Your task to perform on an android device: WHat are the new products by Samsung on eBay? Image 0: 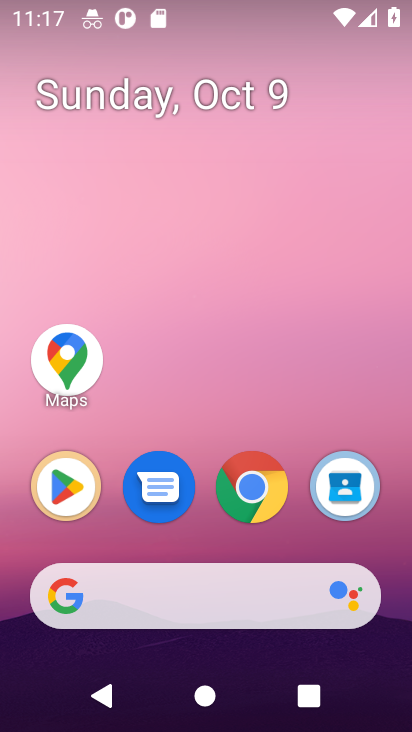
Step 0: click (257, 491)
Your task to perform on an android device: WHat are the new products by Samsung on eBay? Image 1: 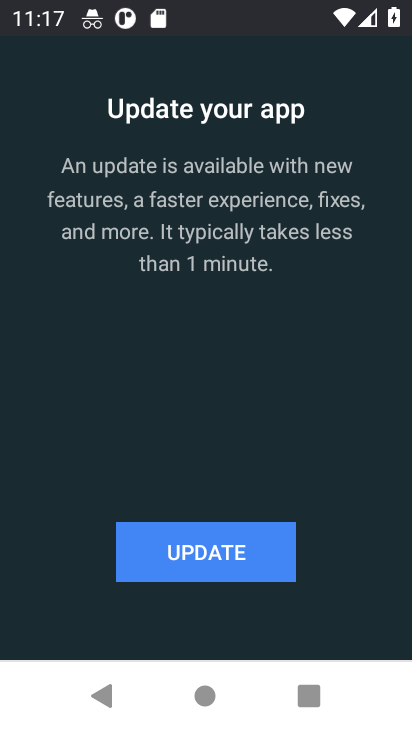
Step 1: press home button
Your task to perform on an android device: WHat are the new products by Samsung on eBay? Image 2: 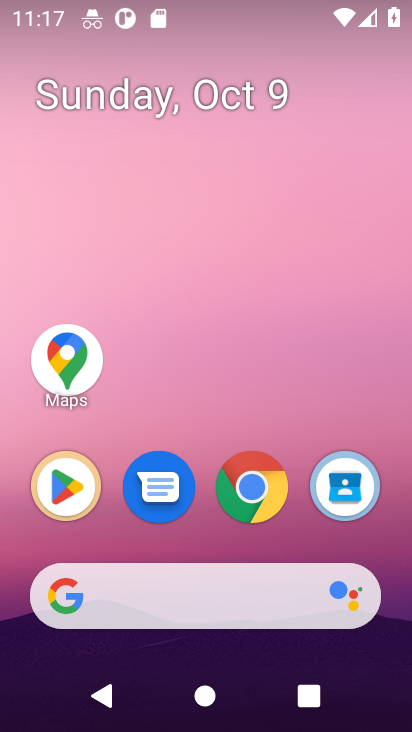
Step 2: click (269, 505)
Your task to perform on an android device: WHat are the new products by Samsung on eBay? Image 3: 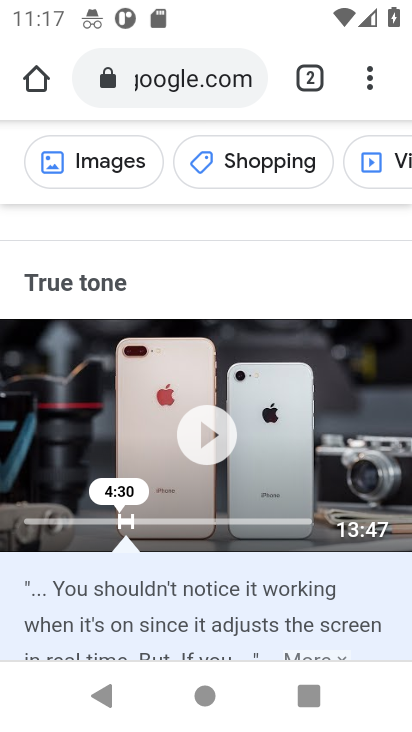
Step 3: click (205, 73)
Your task to perform on an android device: WHat are the new products by Samsung on eBay? Image 4: 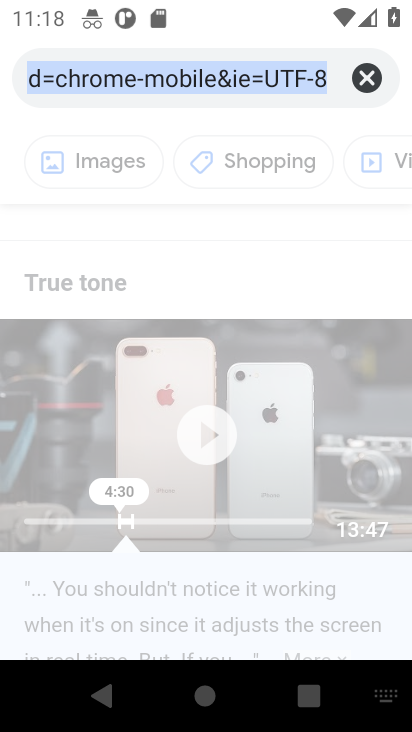
Step 4: type "ebay"
Your task to perform on an android device: WHat are the new products by Samsung on eBay? Image 5: 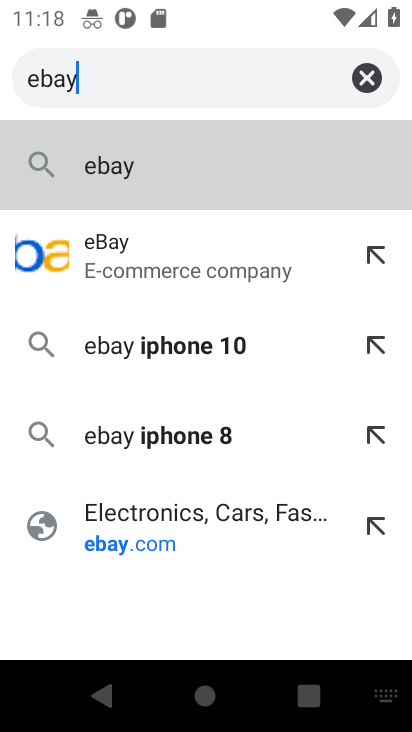
Step 5: press enter
Your task to perform on an android device: WHat are the new products by Samsung on eBay? Image 6: 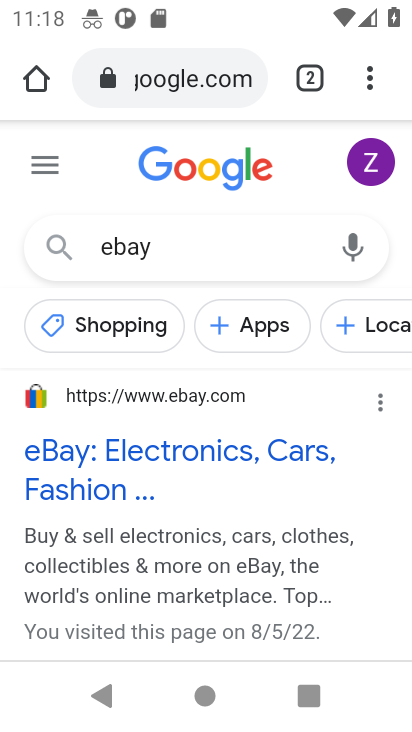
Step 6: click (41, 483)
Your task to perform on an android device: WHat are the new products by Samsung on eBay? Image 7: 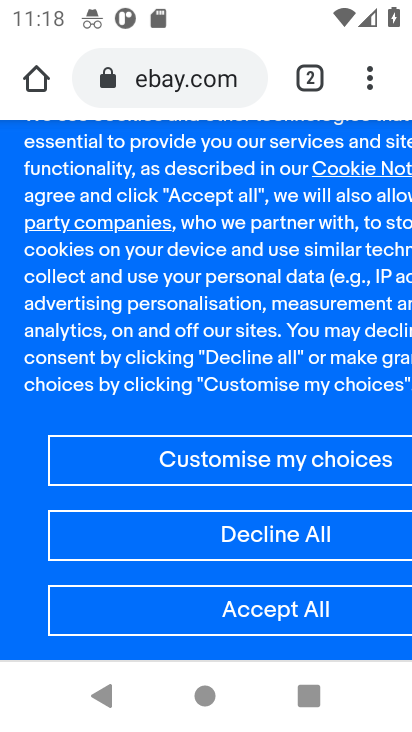
Step 7: click (240, 607)
Your task to perform on an android device: WHat are the new products by Samsung on eBay? Image 8: 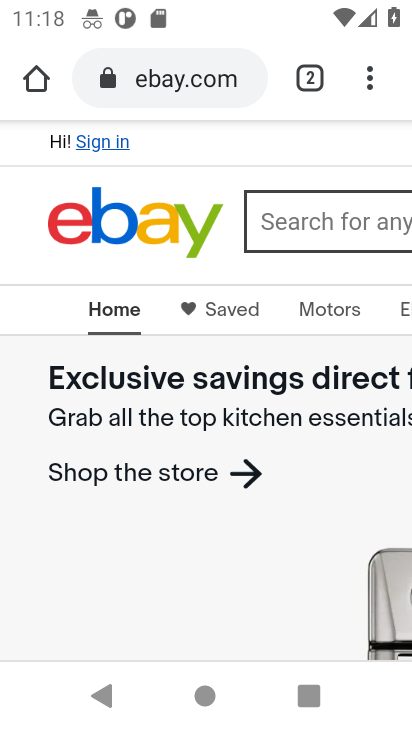
Step 8: click (359, 210)
Your task to perform on an android device: WHat are the new products by Samsung on eBay? Image 9: 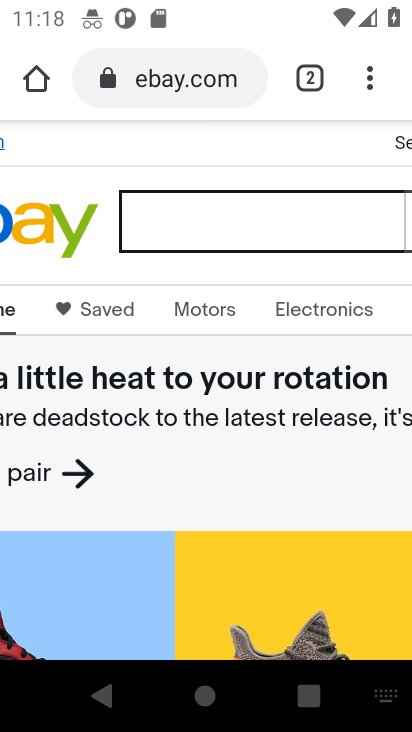
Step 9: click (321, 216)
Your task to perform on an android device: WHat are the new products by Samsung on eBay? Image 10: 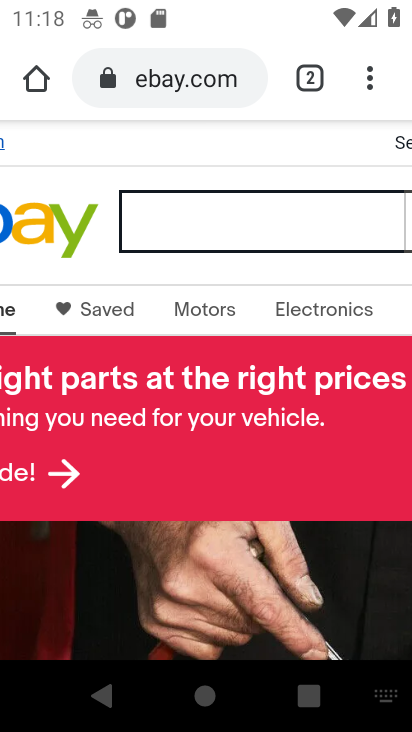
Step 10: type "samsung"
Your task to perform on an android device: WHat are the new products by Samsung on eBay? Image 11: 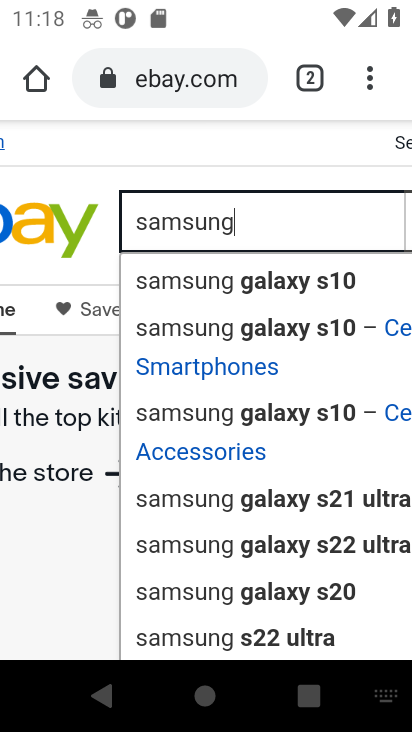
Step 11: press enter
Your task to perform on an android device: WHat are the new products by Samsung on eBay? Image 12: 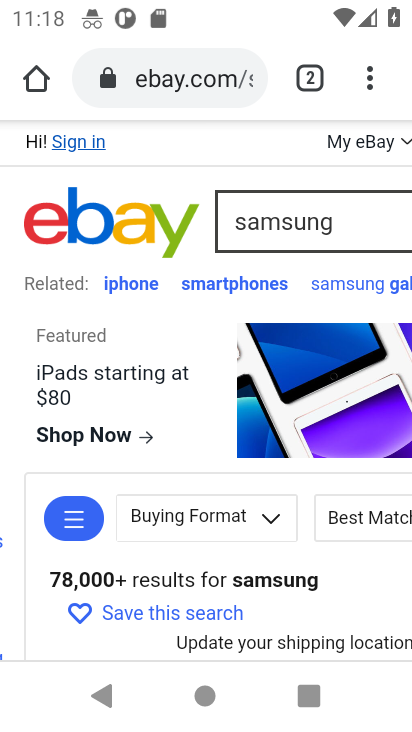
Step 12: drag from (181, 575) to (196, 264)
Your task to perform on an android device: WHat are the new products by Samsung on eBay? Image 13: 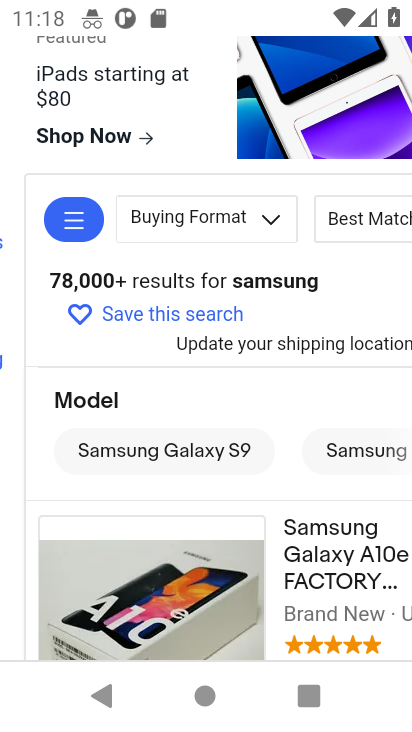
Step 13: click (81, 228)
Your task to perform on an android device: WHat are the new products by Samsung on eBay? Image 14: 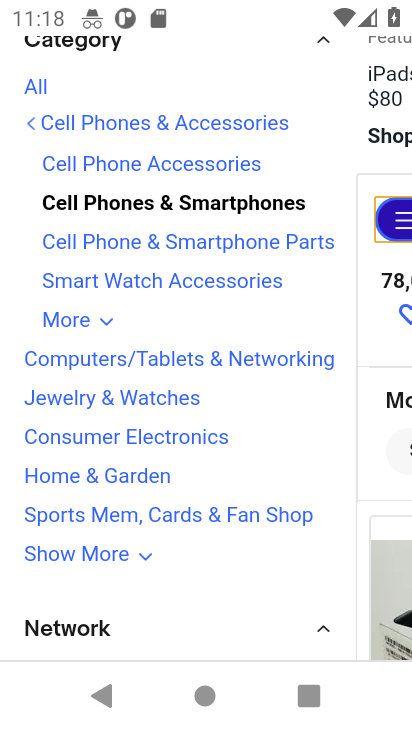
Step 14: click (390, 178)
Your task to perform on an android device: WHat are the new products by Samsung on eBay? Image 15: 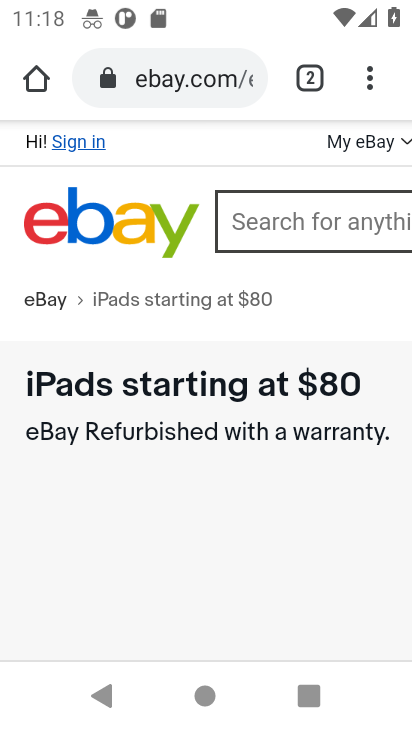
Step 15: click (282, 229)
Your task to perform on an android device: WHat are the new products by Samsung on eBay? Image 16: 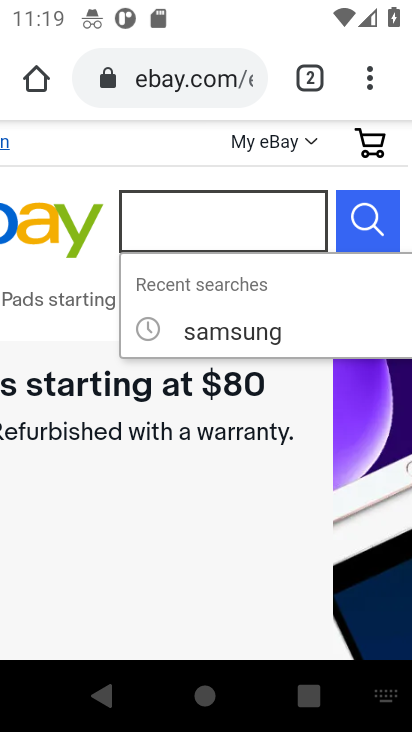
Step 16: type "samsung new products"
Your task to perform on an android device: WHat are the new products by Samsung on eBay? Image 17: 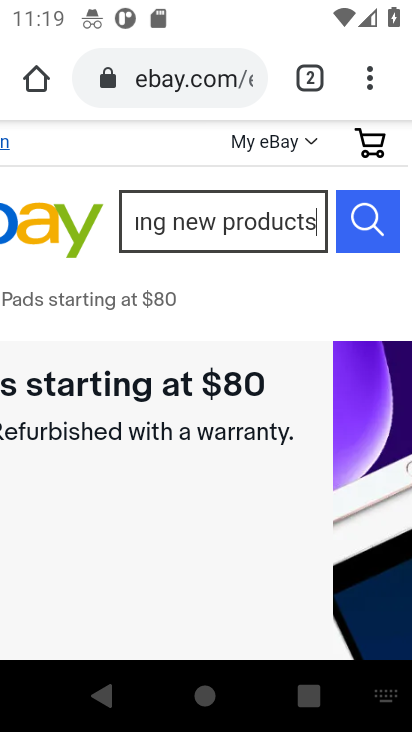
Step 17: press enter
Your task to perform on an android device: WHat are the new products by Samsung on eBay? Image 18: 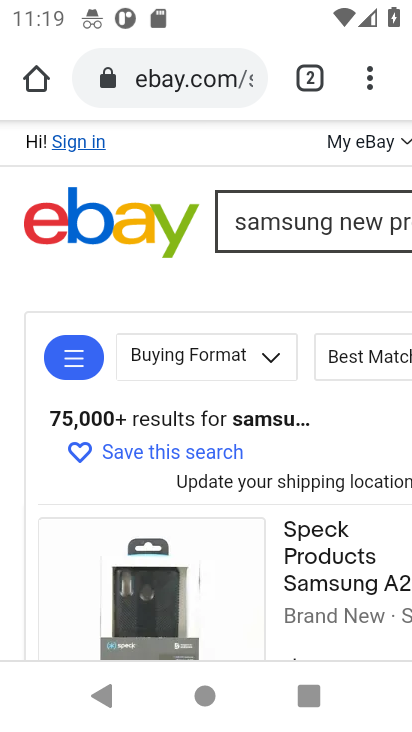
Step 18: drag from (254, 575) to (275, 444)
Your task to perform on an android device: WHat are the new products by Samsung on eBay? Image 19: 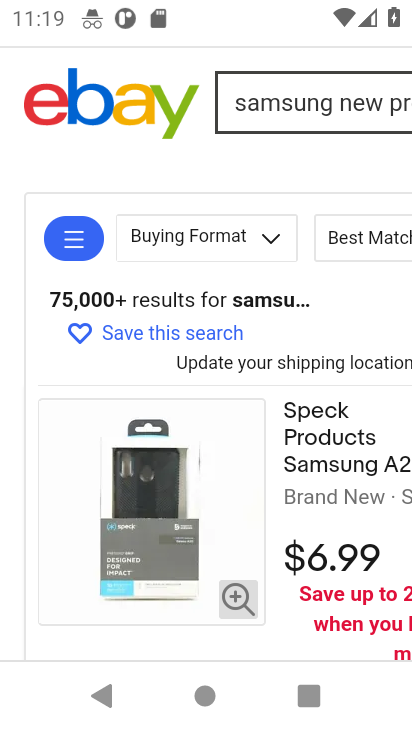
Step 19: click (244, 232)
Your task to perform on an android device: WHat are the new products by Samsung on eBay? Image 20: 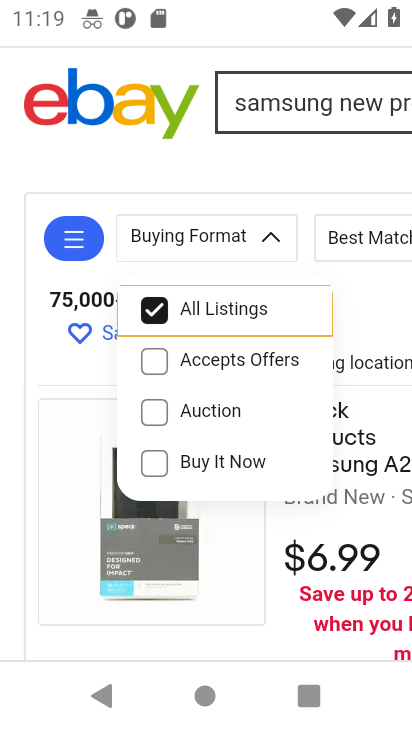
Step 20: click (361, 235)
Your task to perform on an android device: WHat are the new products by Samsung on eBay? Image 21: 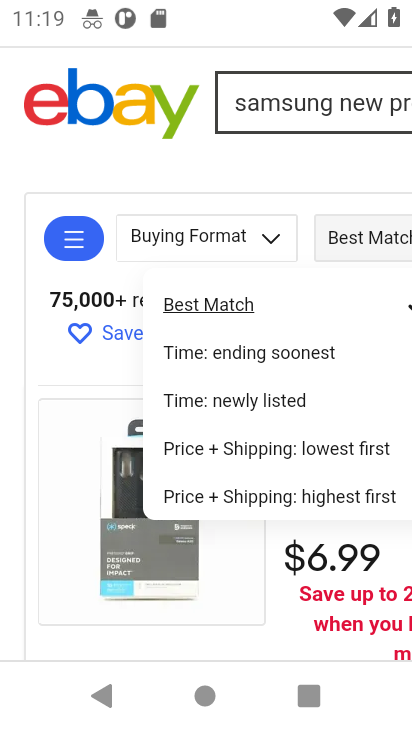
Step 21: click (232, 399)
Your task to perform on an android device: WHat are the new products by Samsung on eBay? Image 22: 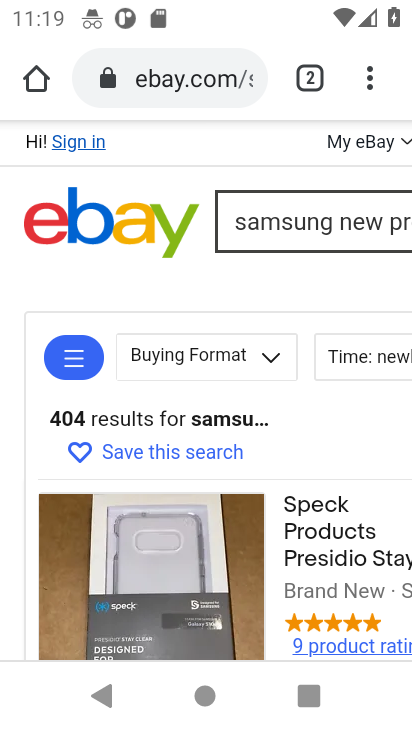
Step 22: task complete